Your task to perform on an android device: Add "energizer triple a" to the cart on bestbuy Image 0: 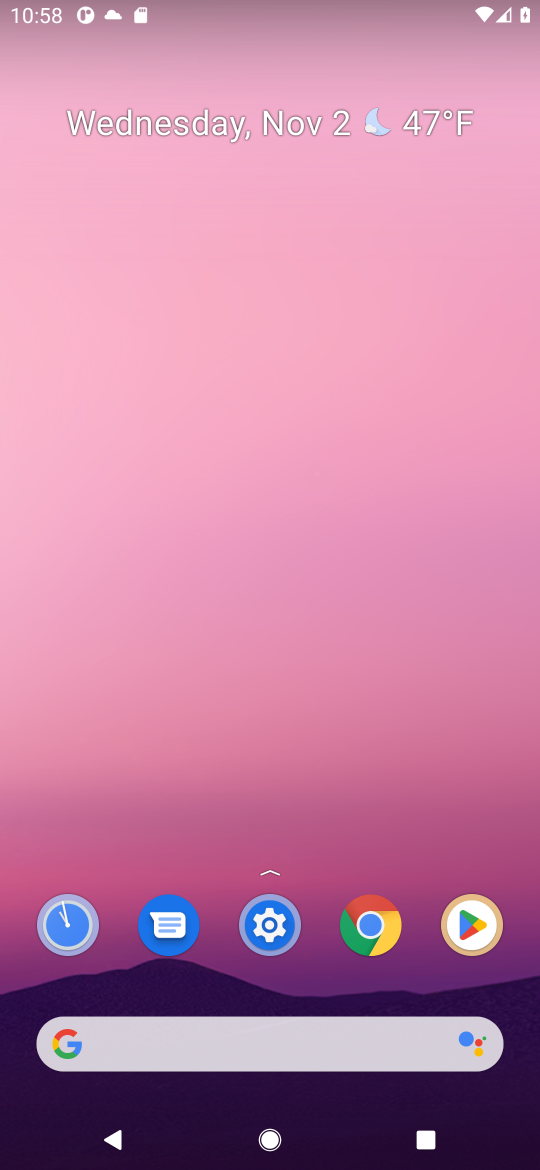
Step 0: click (372, 923)
Your task to perform on an android device: Add "energizer triple a" to the cart on bestbuy Image 1: 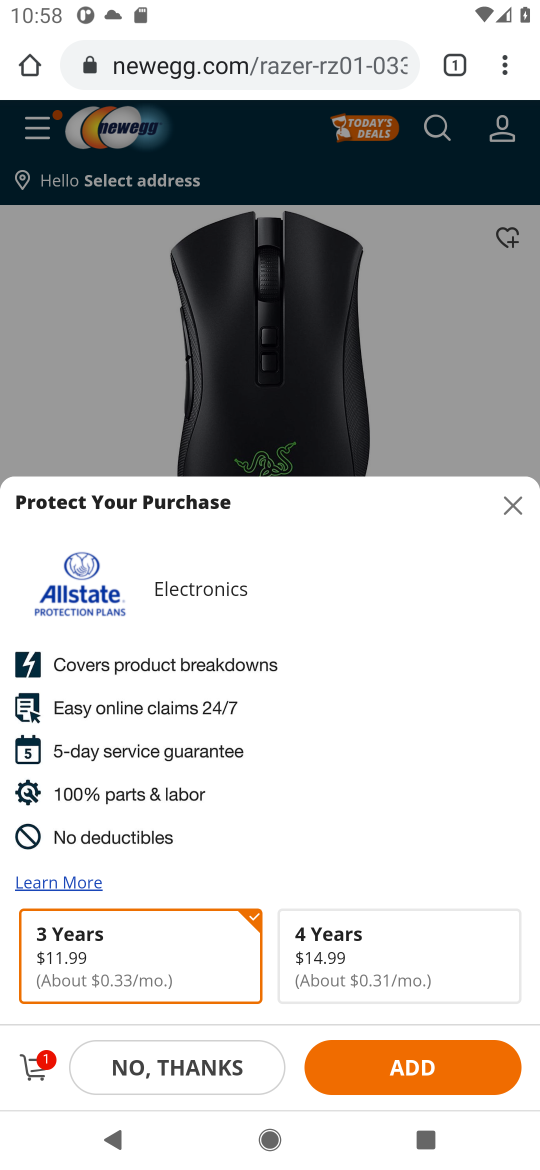
Step 1: click (452, 67)
Your task to perform on an android device: Add "energizer triple a" to the cart on bestbuy Image 2: 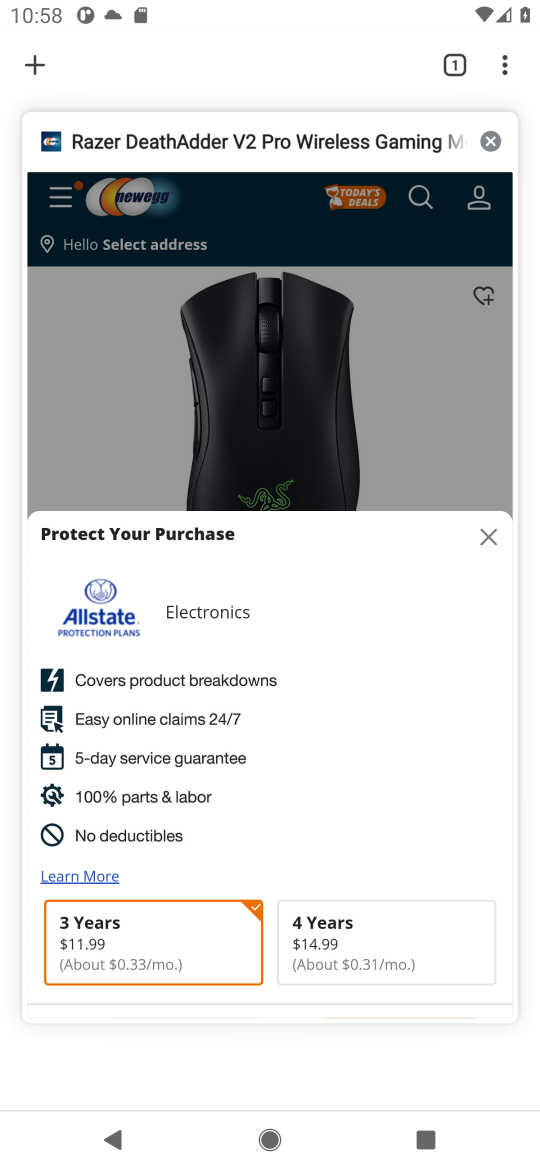
Step 2: click (36, 66)
Your task to perform on an android device: Add "energizer triple a" to the cart on bestbuy Image 3: 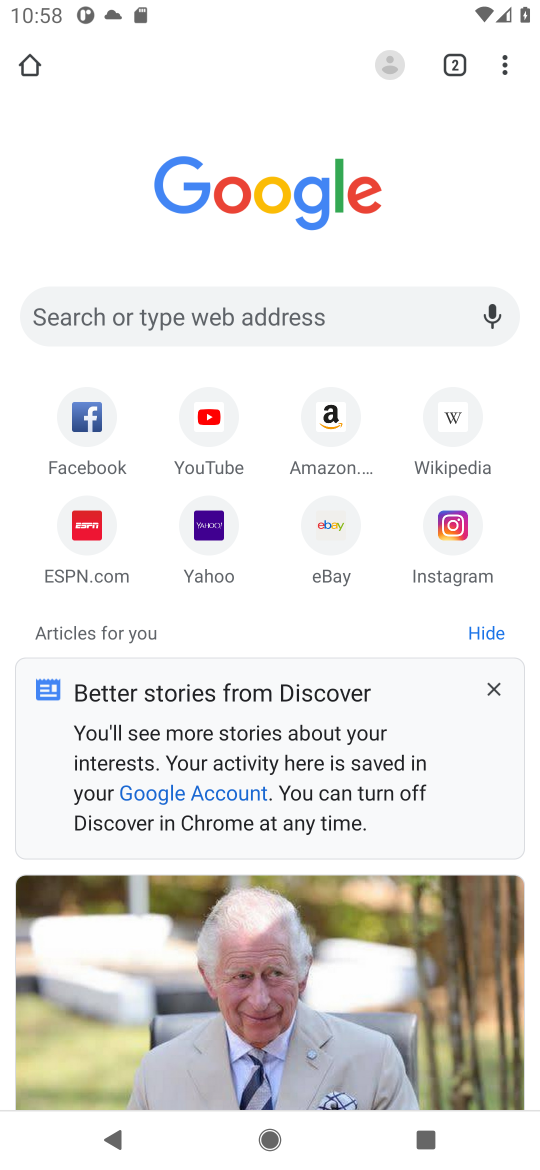
Step 3: click (209, 313)
Your task to perform on an android device: Add "energizer triple a" to the cart on bestbuy Image 4: 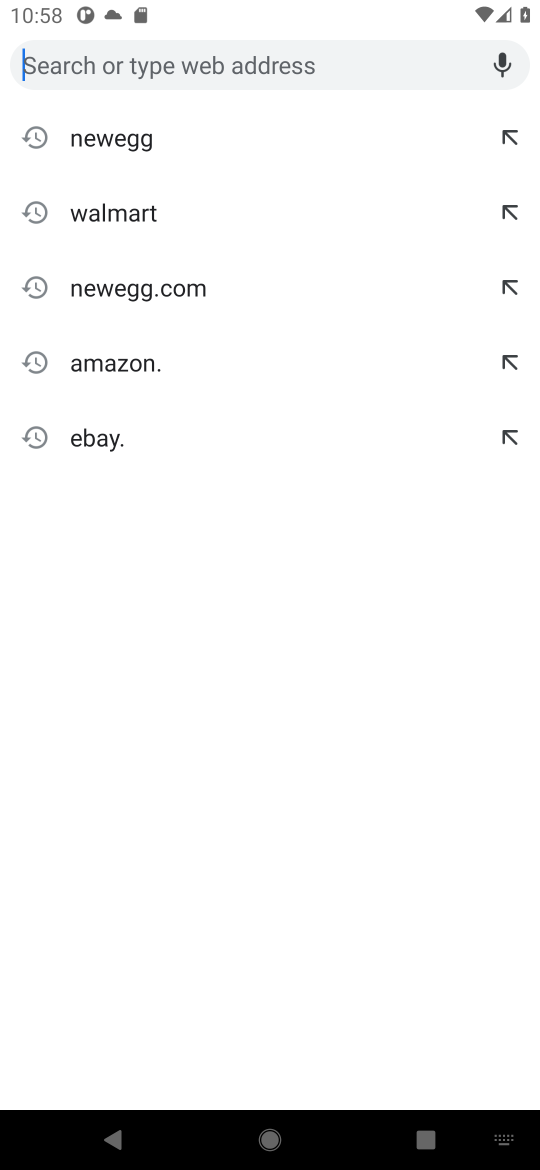
Step 4: type "bestbuy"
Your task to perform on an android device: Add "energizer triple a" to the cart on bestbuy Image 5: 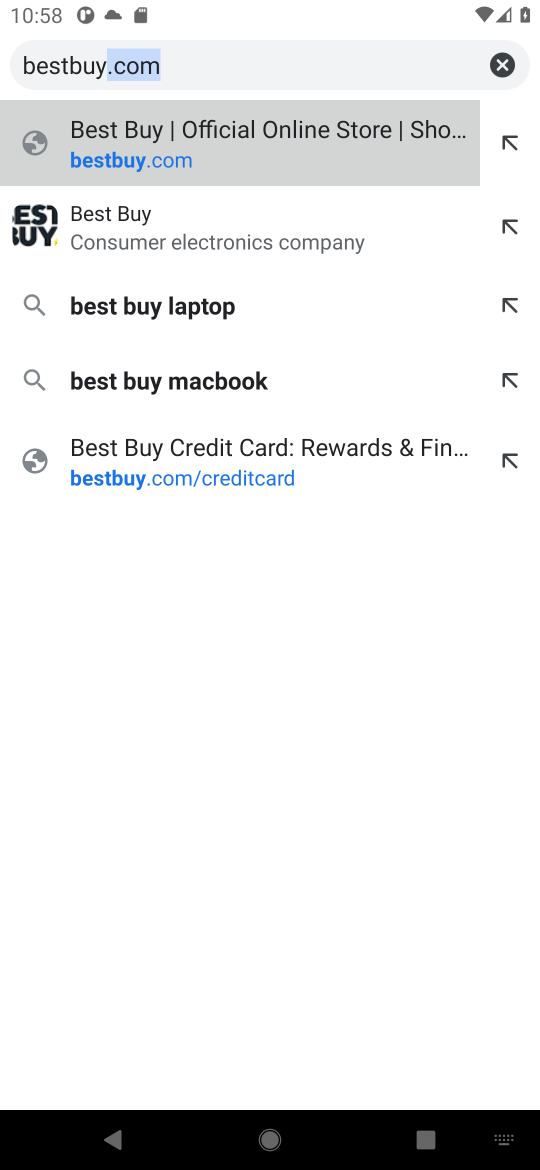
Step 5: click (164, 138)
Your task to perform on an android device: Add "energizer triple a" to the cart on bestbuy Image 6: 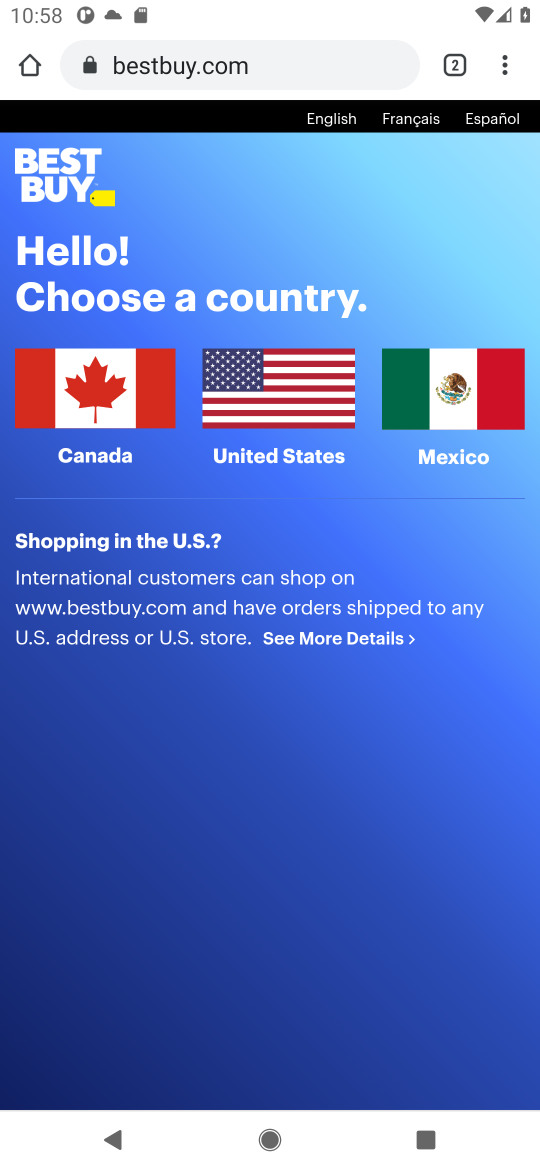
Step 6: click (292, 415)
Your task to perform on an android device: Add "energizer triple a" to the cart on bestbuy Image 7: 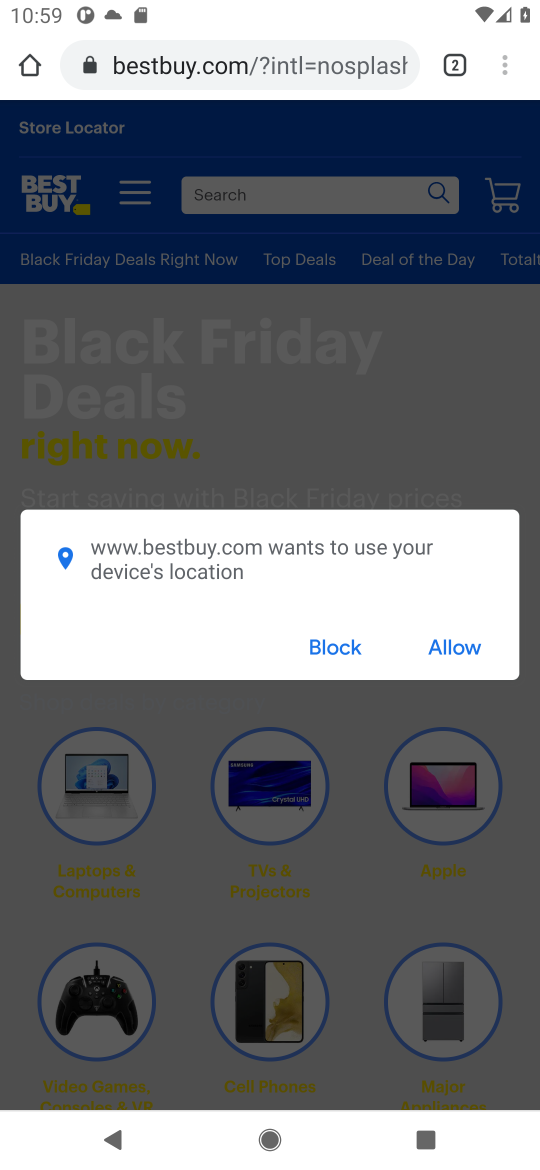
Step 7: click (470, 642)
Your task to perform on an android device: Add "energizer triple a" to the cart on bestbuy Image 8: 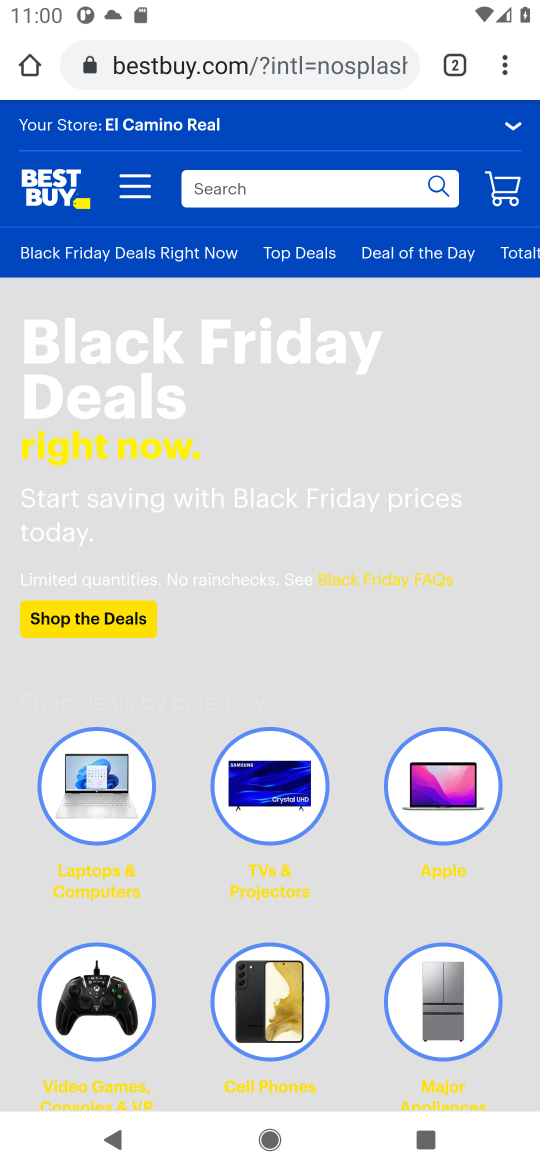
Step 8: click (248, 186)
Your task to perform on an android device: Add "energizer triple a" to the cart on bestbuy Image 9: 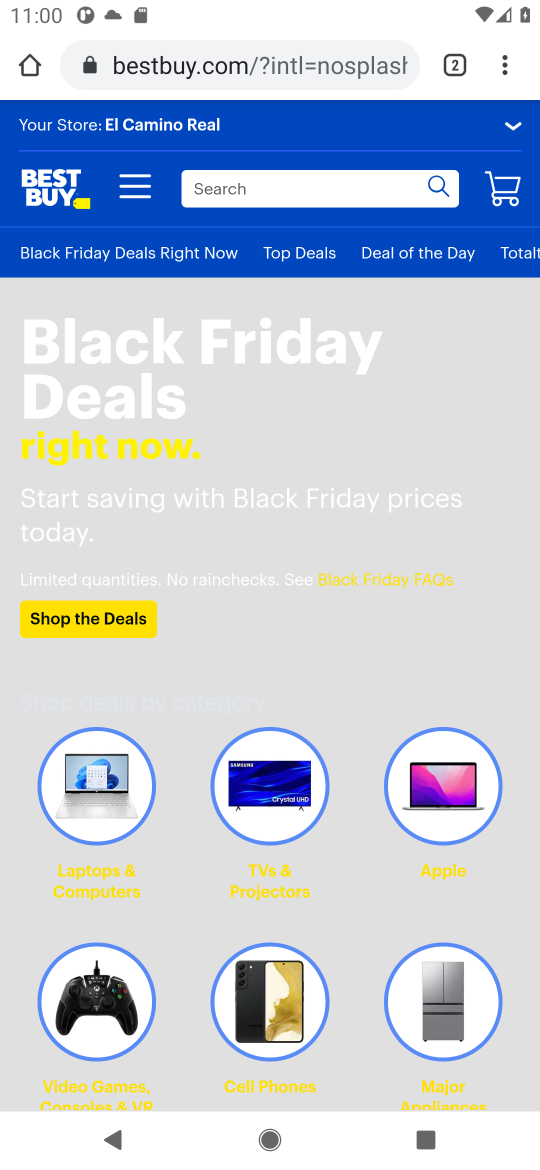
Step 9: click (248, 186)
Your task to perform on an android device: Add "energizer triple a" to the cart on bestbuy Image 10: 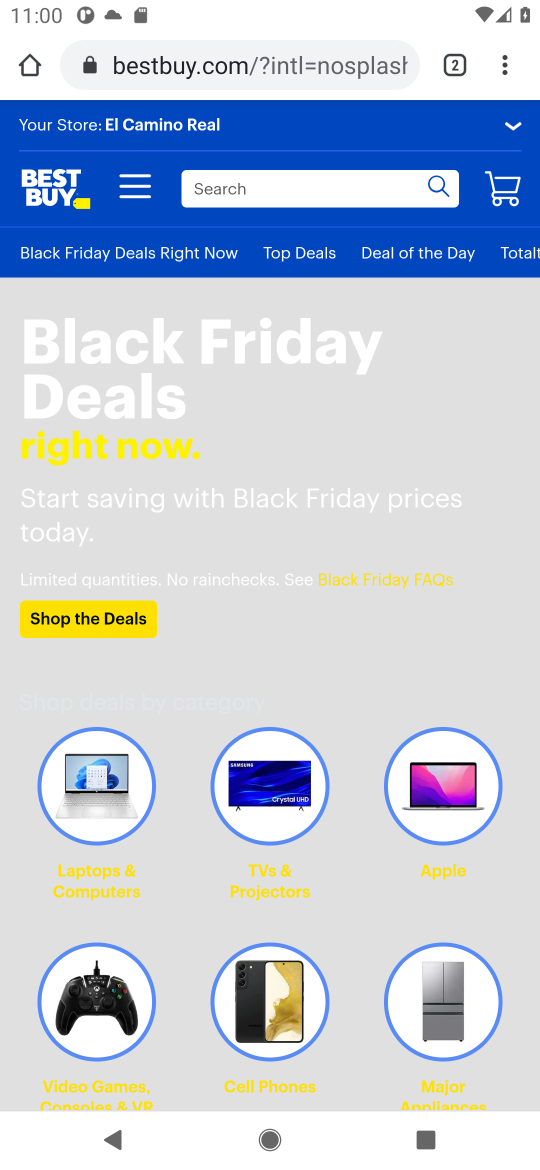
Step 10: type "energizer triple a"
Your task to perform on an android device: Add "energizer triple a" to the cart on bestbuy Image 11: 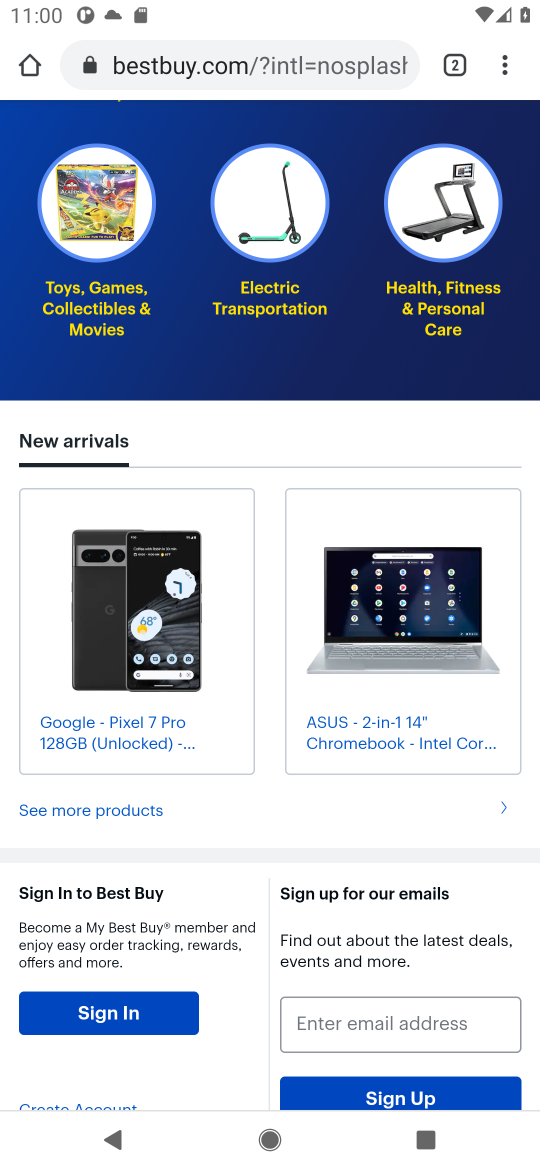
Step 11: press back button
Your task to perform on an android device: Add "energizer triple a" to the cart on bestbuy Image 12: 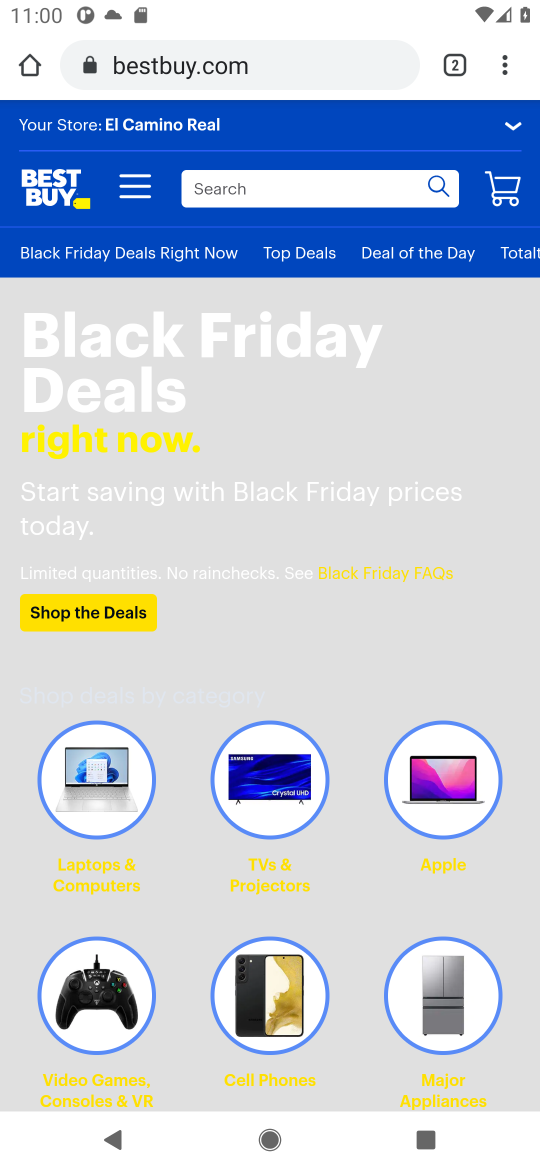
Step 12: click (248, 187)
Your task to perform on an android device: Add "energizer triple a" to the cart on bestbuy Image 13: 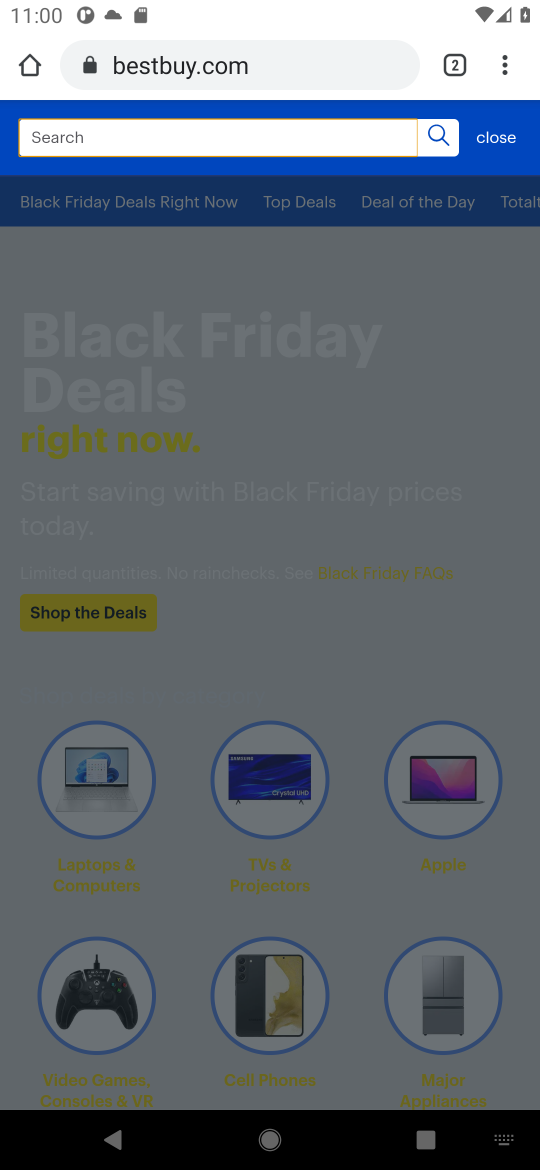
Step 13: type "energizer triple a battery"
Your task to perform on an android device: Add "energizer triple a" to the cart on bestbuy Image 14: 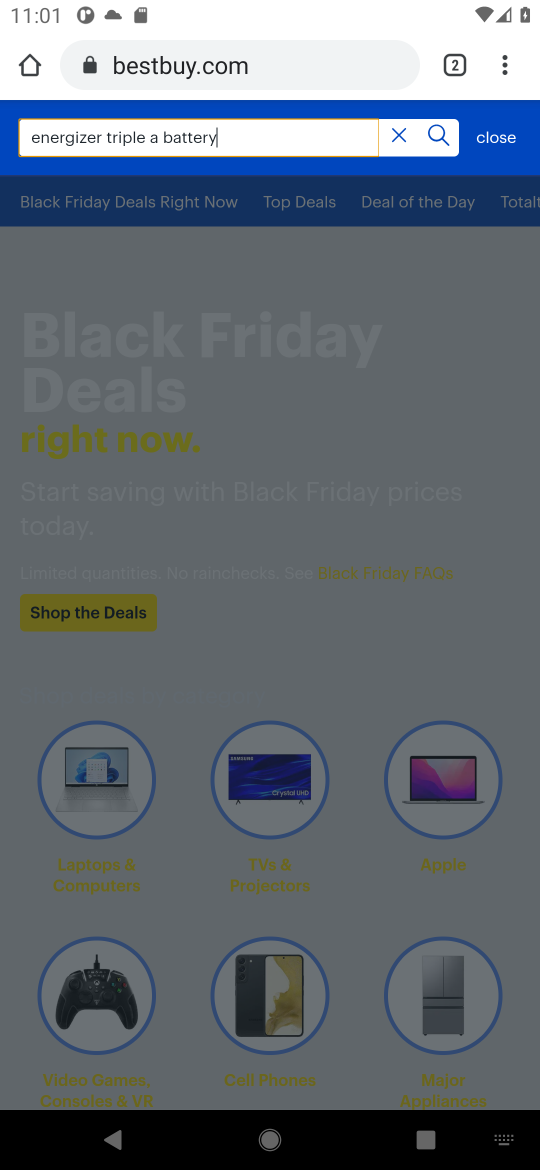
Step 14: click (444, 138)
Your task to perform on an android device: Add "energizer triple a" to the cart on bestbuy Image 15: 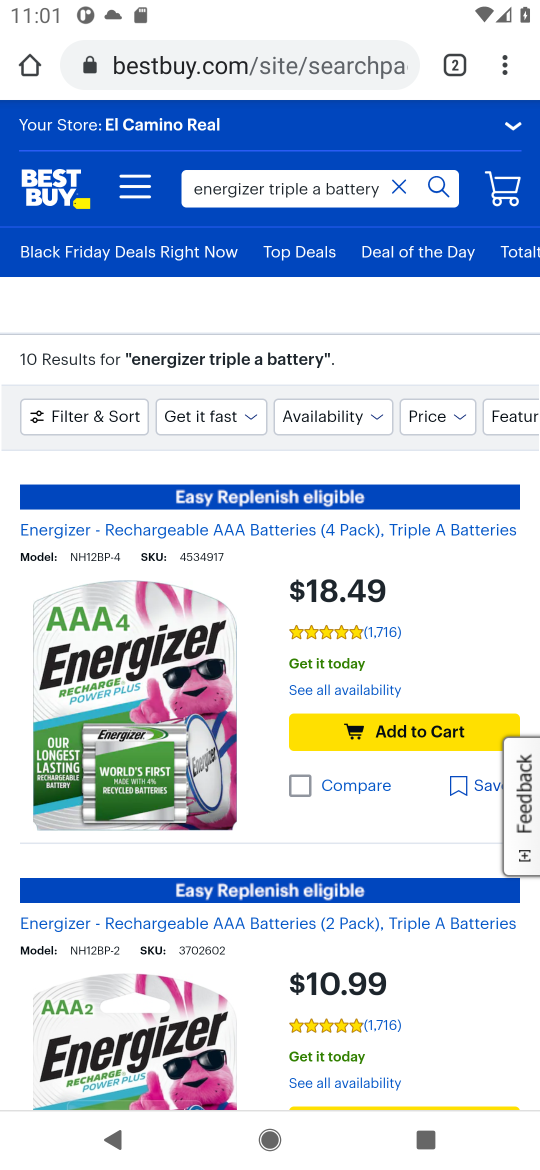
Step 15: click (360, 730)
Your task to perform on an android device: Add "energizer triple a" to the cart on bestbuy Image 16: 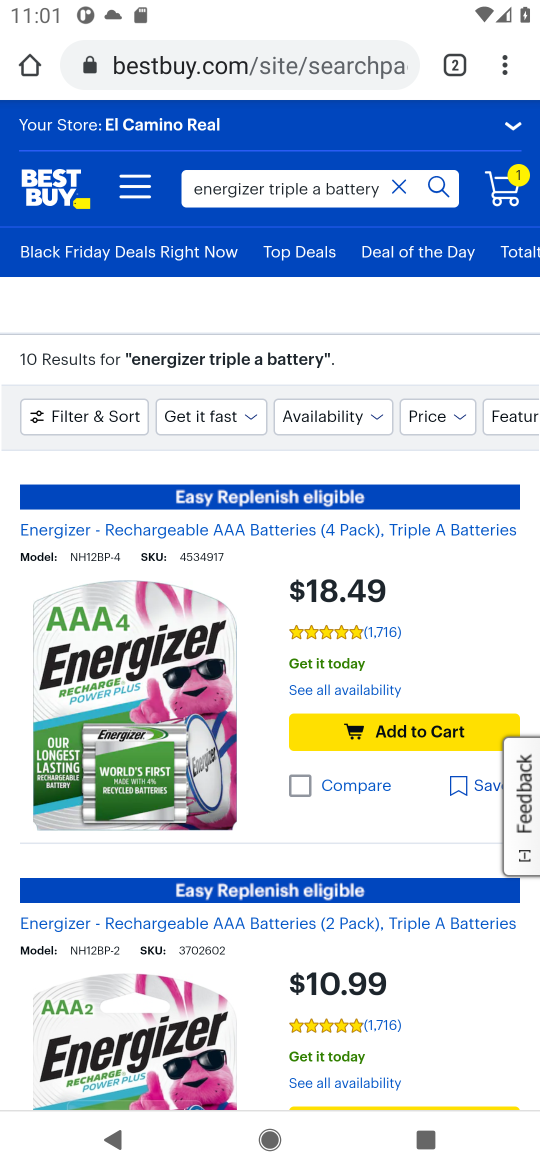
Step 16: task complete